Your task to perform on an android device: turn off sleep mode Image 0: 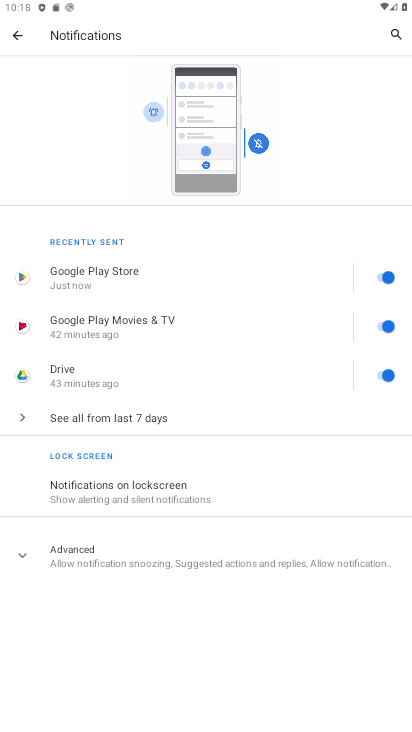
Step 0: press home button
Your task to perform on an android device: turn off sleep mode Image 1: 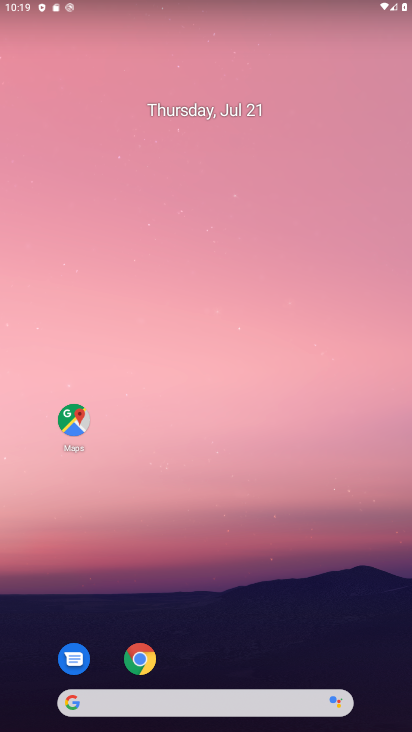
Step 1: drag from (212, 684) to (134, 136)
Your task to perform on an android device: turn off sleep mode Image 2: 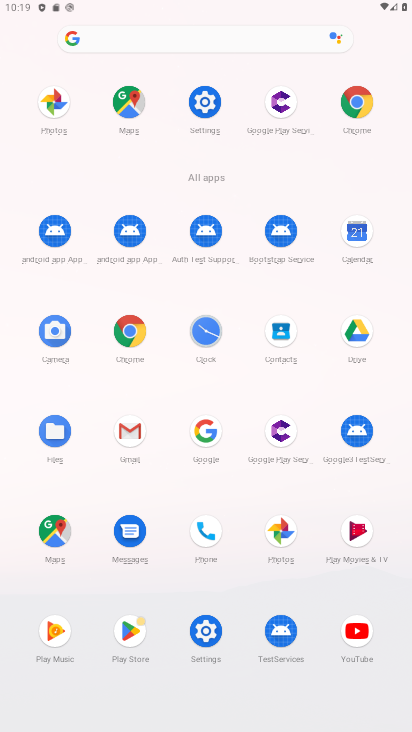
Step 2: click (199, 99)
Your task to perform on an android device: turn off sleep mode Image 3: 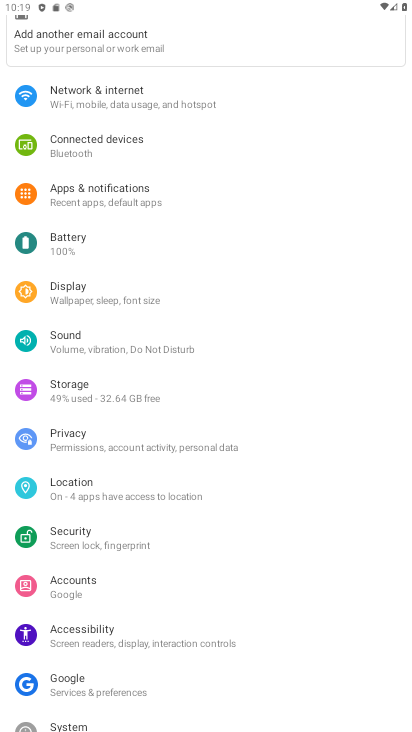
Step 3: click (64, 303)
Your task to perform on an android device: turn off sleep mode Image 4: 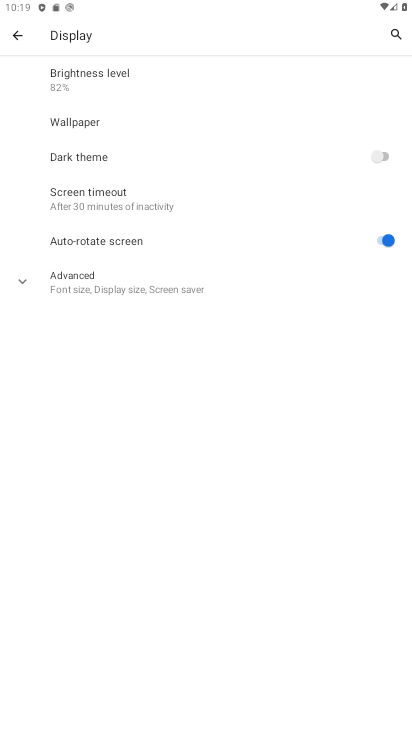
Step 4: click (64, 303)
Your task to perform on an android device: turn off sleep mode Image 5: 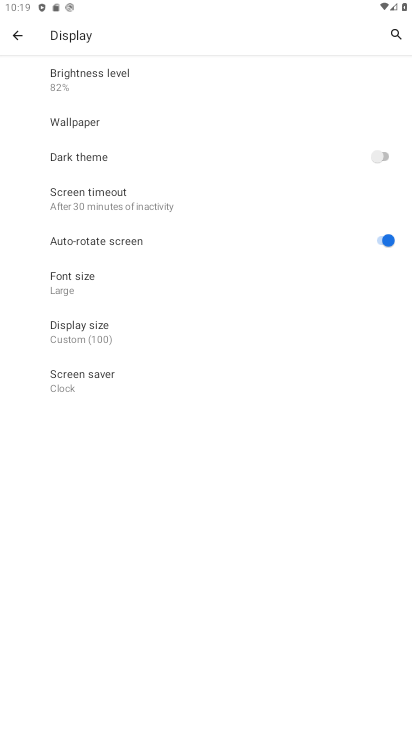
Step 5: task complete